Your task to perform on an android device: turn off priority inbox in the gmail app Image 0: 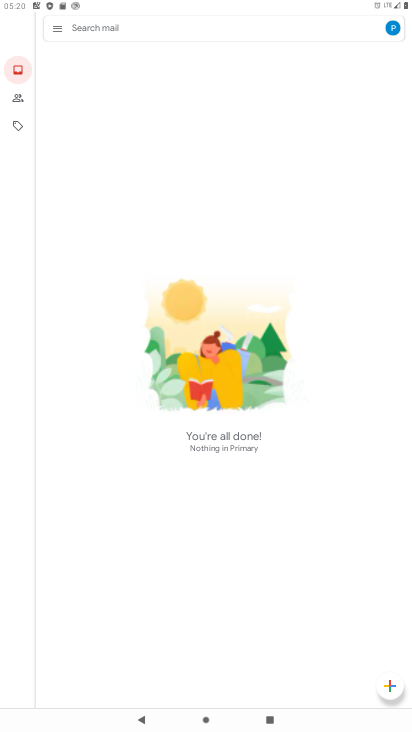
Step 0: click (59, 31)
Your task to perform on an android device: turn off priority inbox in the gmail app Image 1: 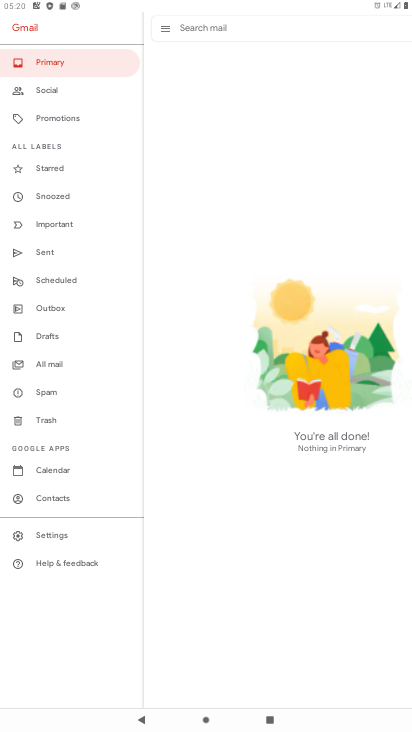
Step 1: click (59, 535)
Your task to perform on an android device: turn off priority inbox in the gmail app Image 2: 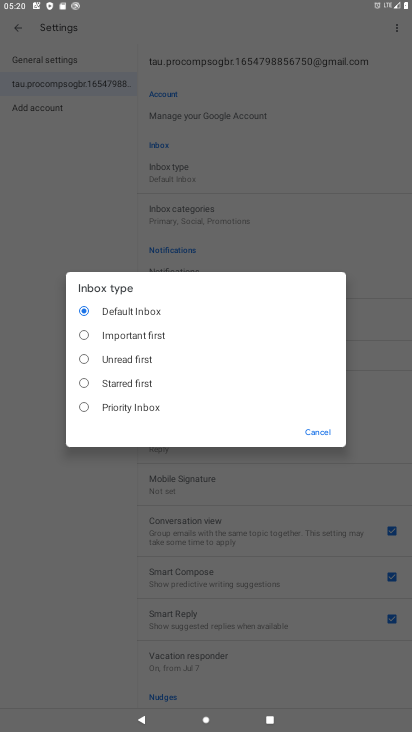
Step 2: task complete